Your task to perform on an android device: toggle priority inbox in the gmail app Image 0: 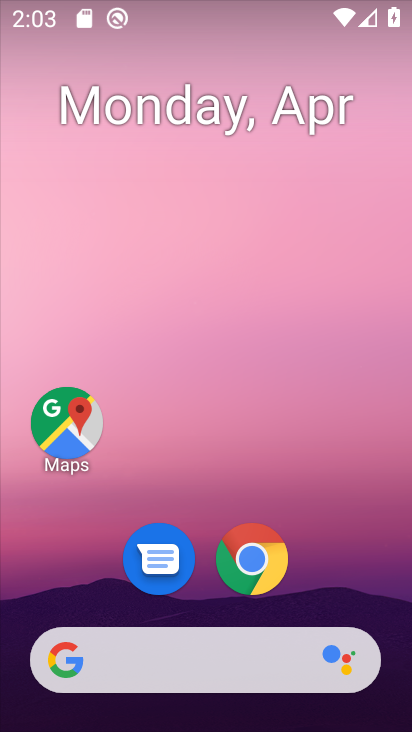
Step 0: drag from (321, 478) to (94, 86)
Your task to perform on an android device: toggle priority inbox in the gmail app Image 1: 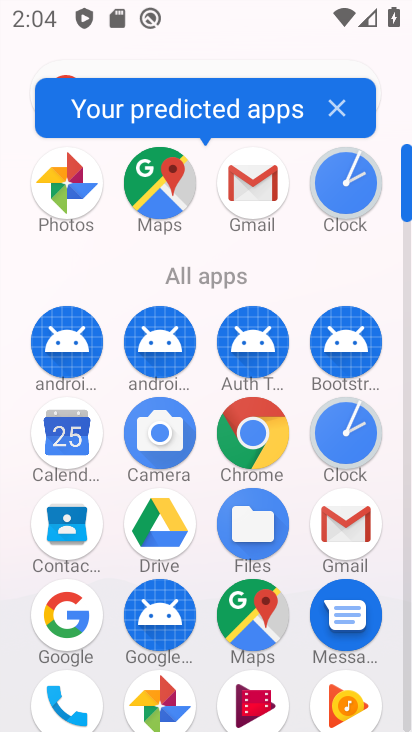
Step 1: click (259, 187)
Your task to perform on an android device: toggle priority inbox in the gmail app Image 2: 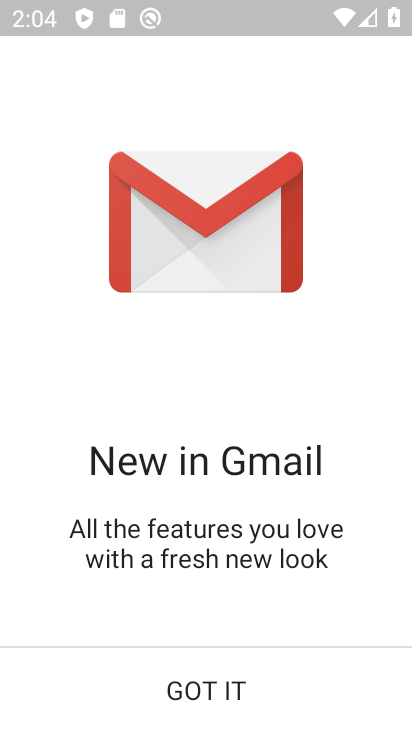
Step 2: click (206, 686)
Your task to perform on an android device: toggle priority inbox in the gmail app Image 3: 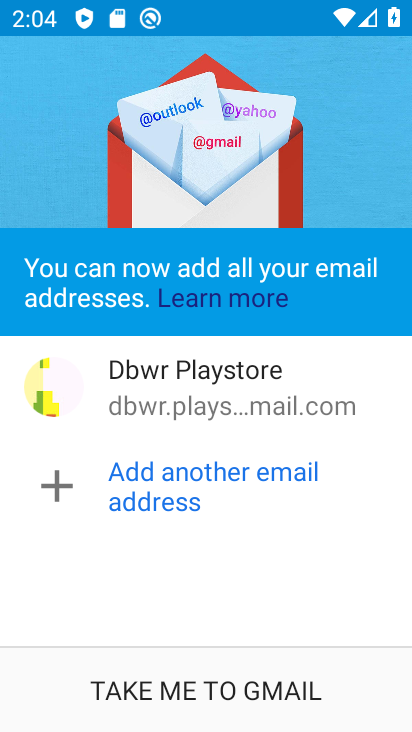
Step 3: click (206, 685)
Your task to perform on an android device: toggle priority inbox in the gmail app Image 4: 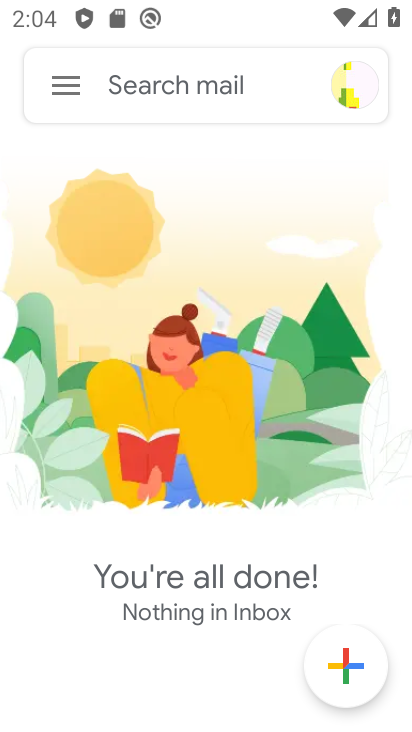
Step 4: click (56, 93)
Your task to perform on an android device: toggle priority inbox in the gmail app Image 5: 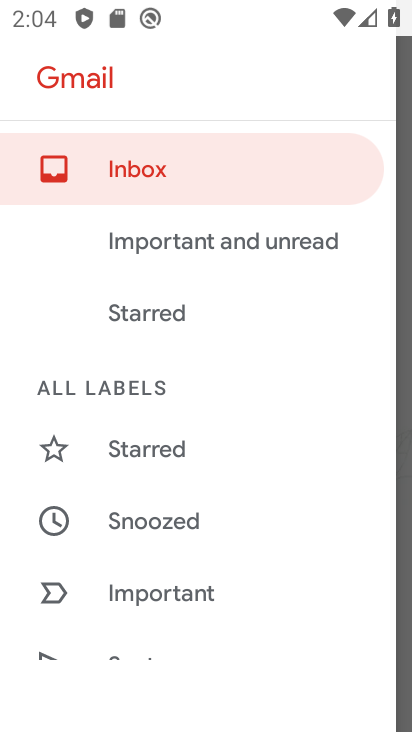
Step 5: drag from (195, 618) to (203, 104)
Your task to perform on an android device: toggle priority inbox in the gmail app Image 6: 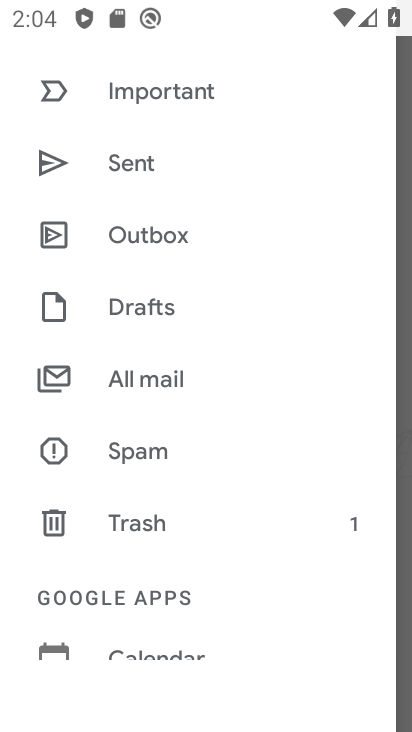
Step 6: drag from (135, 637) to (208, 114)
Your task to perform on an android device: toggle priority inbox in the gmail app Image 7: 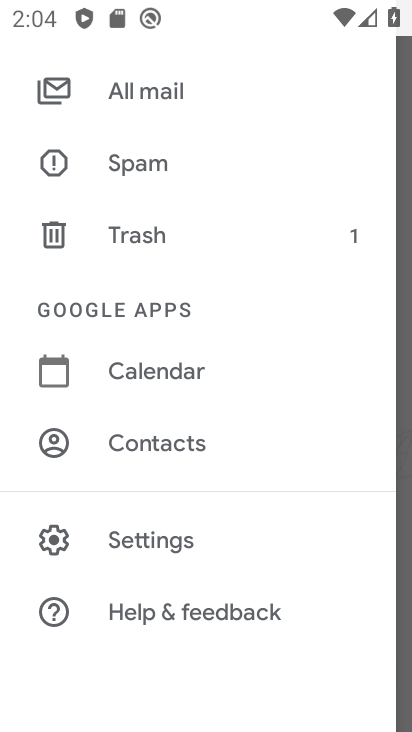
Step 7: click (100, 526)
Your task to perform on an android device: toggle priority inbox in the gmail app Image 8: 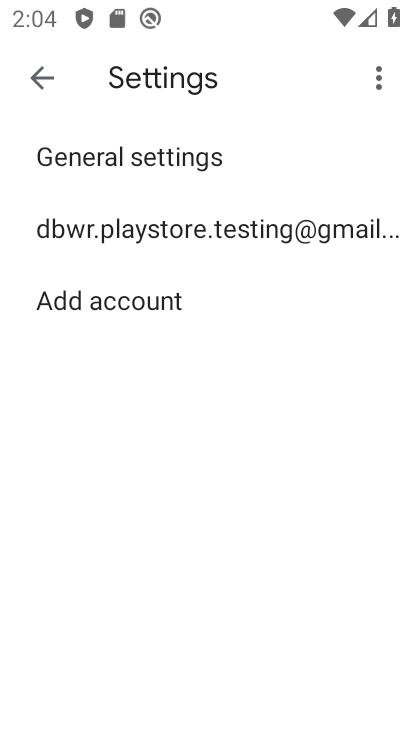
Step 8: click (170, 233)
Your task to perform on an android device: toggle priority inbox in the gmail app Image 9: 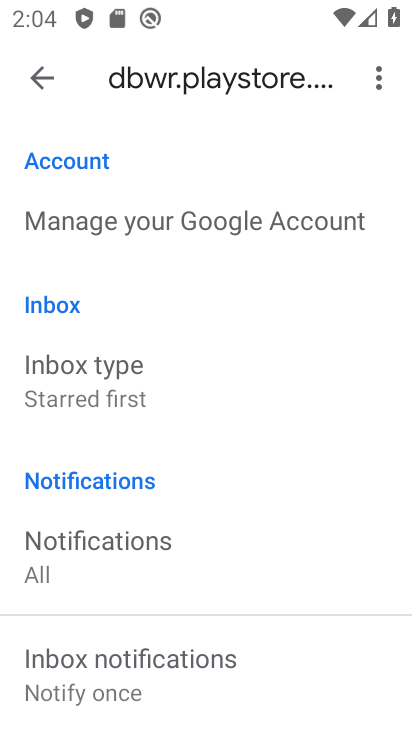
Step 9: click (70, 388)
Your task to perform on an android device: toggle priority inbox in the gmail app Image 10: 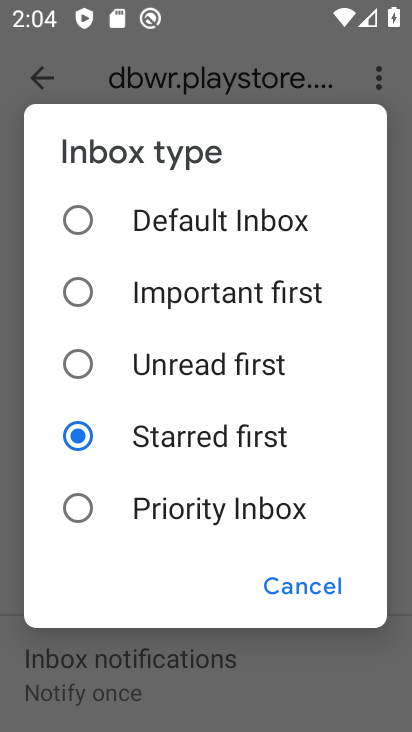
Step 10: click (82, 512)
Your task to perform on an android device: toggle priority inbox in the gmail app Image 11: 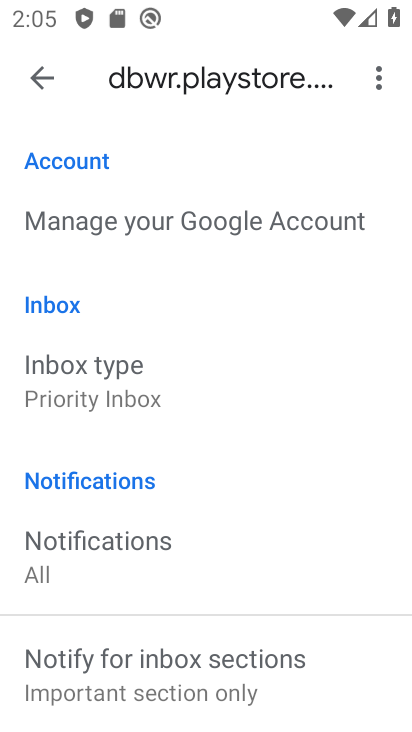
Step 11: task complete